Your task to perform on an android device: turn on notifications settings in the gmail app Image 0: 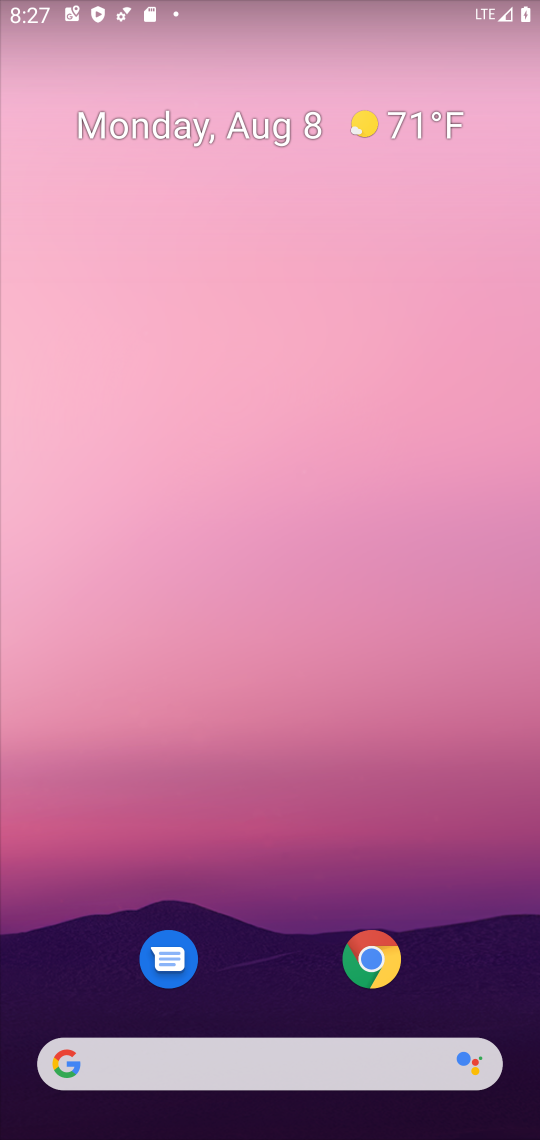
Step 0: drag from (536, 1002) to (247, 73)
Your task to perform on an android device: turn on notifications settings in the gmail app Image 1: 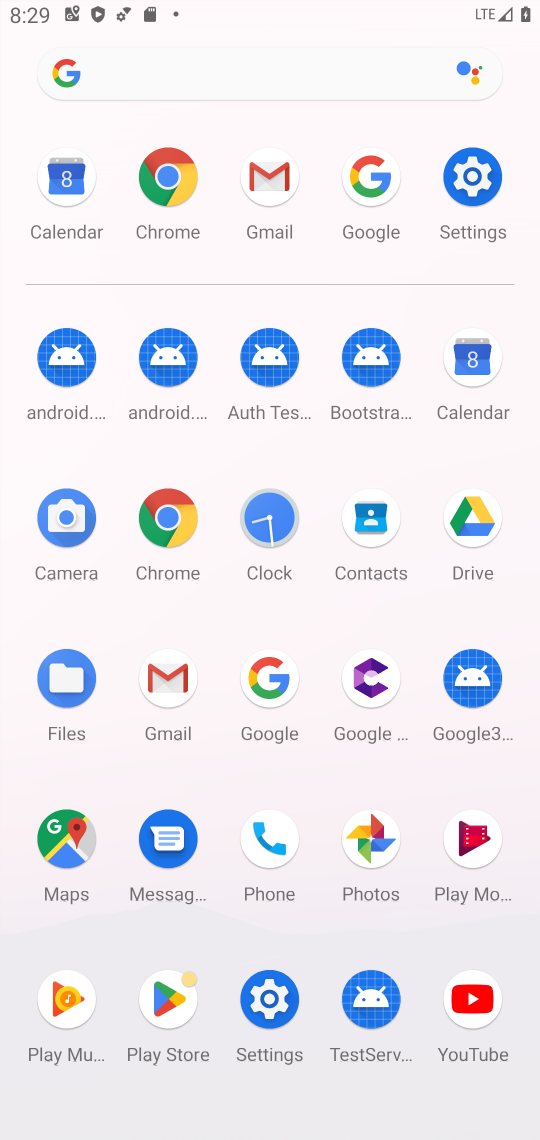
Step 1: click (164, 694)
Your task to perform on an android device: turn on notifications settings in the gmail app Image 2: 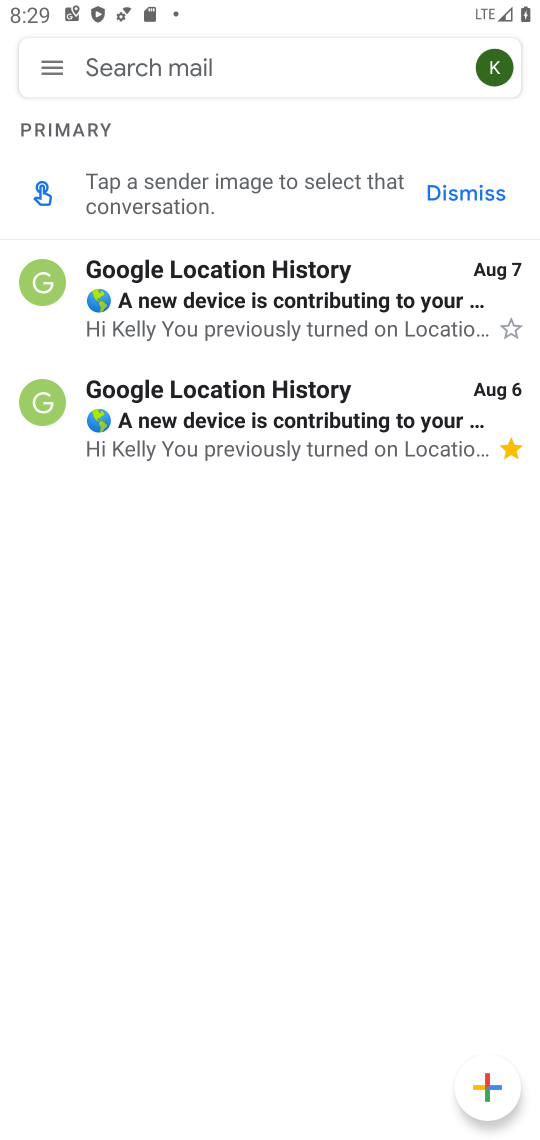
Step 2: click (51, 76)
Your task to perform on an android device: turn on notifications settings in the gmail app Image 3: 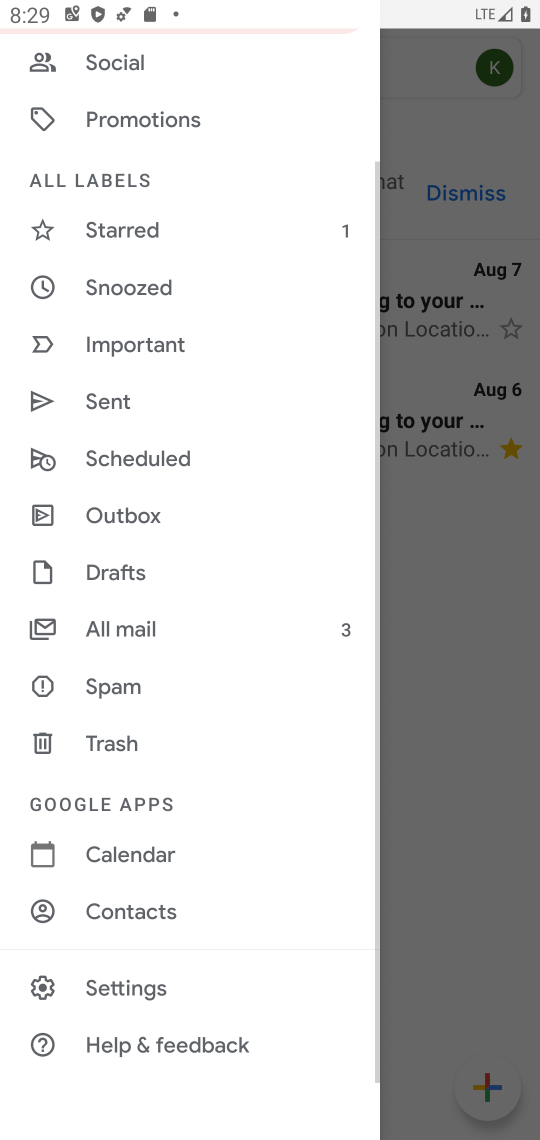
Step 3: click (168, 983)
Your task to perform on an android device: turn on notifications settings in the gmail app Image 4: 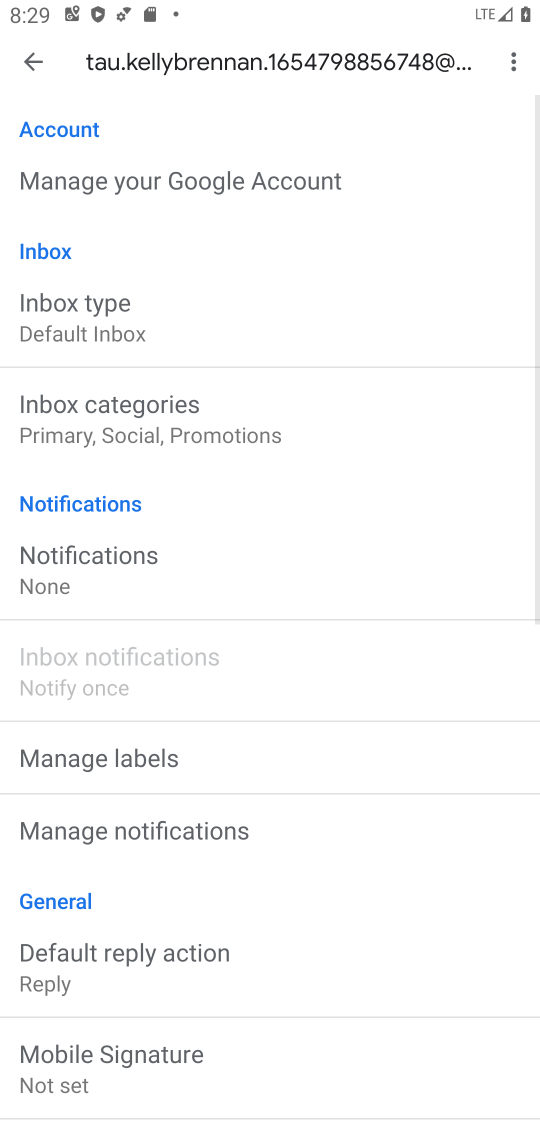
Step 4: click (103, 574)
Your task to perform on an android device: turn on notifications settings in the gmail app Image 5: 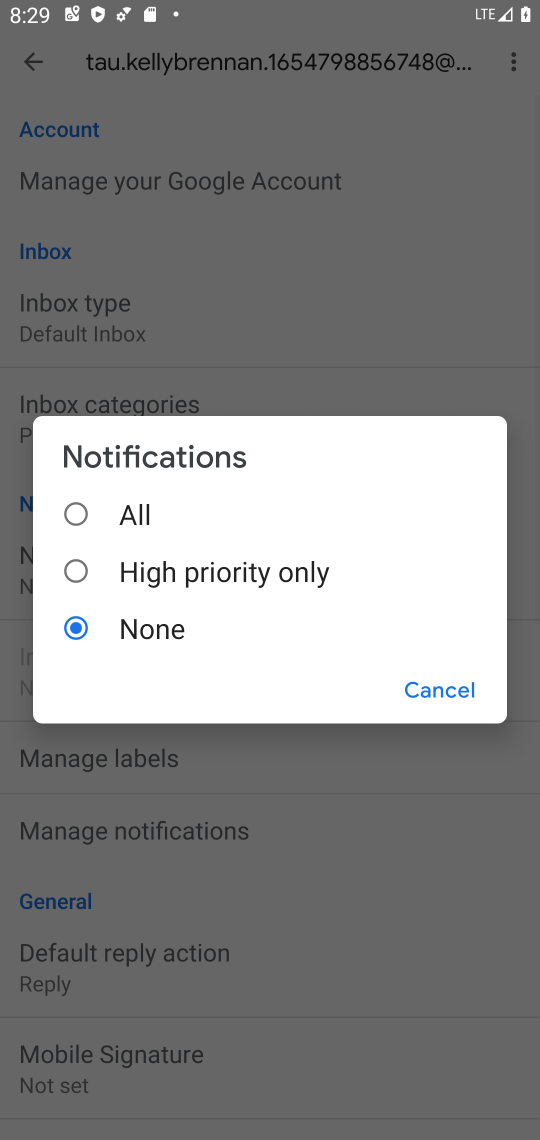
Step 5: click (139, 520)
Your task to perform on an android device: turn on notifications settings in the gmail app Image 6: 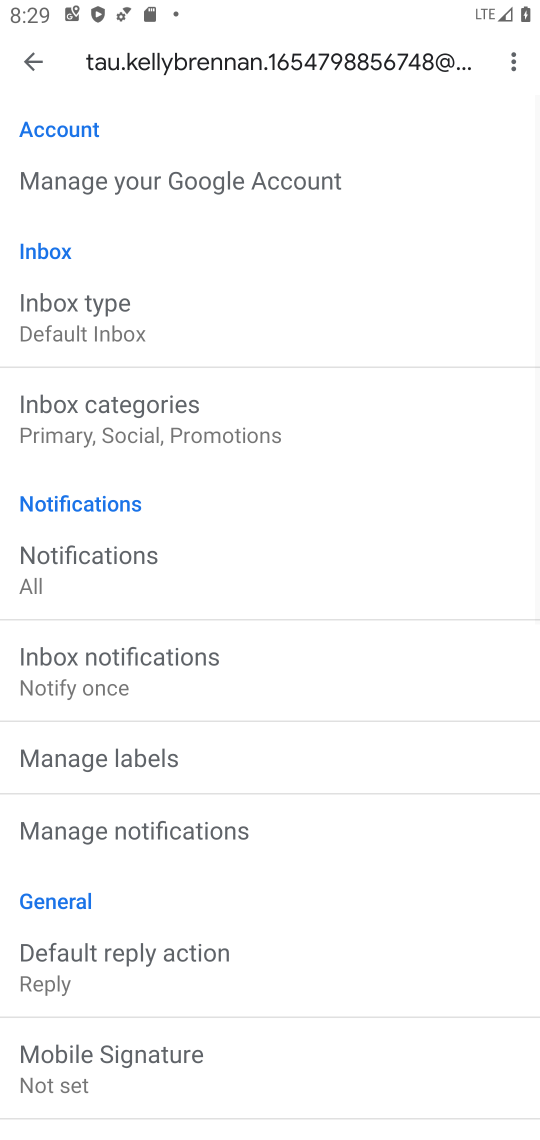
Step 6: task complete